Your task to perform on an android device: Search for Mexican restaurants on Maps Image 0: 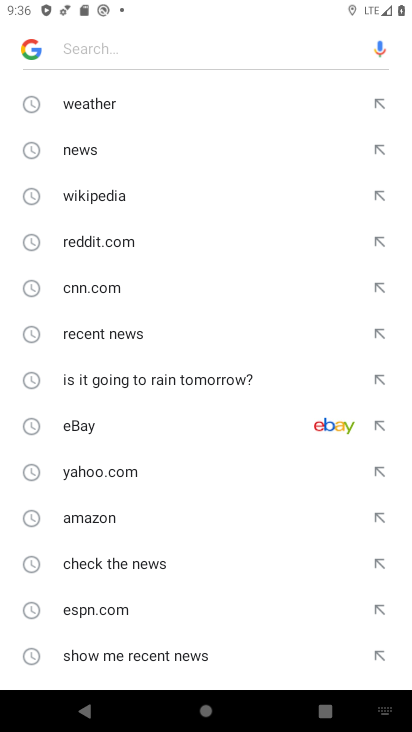
Step 0: press home button
Your task to perform on an android device: Search for Mexican restaurants on Maps Image 1: 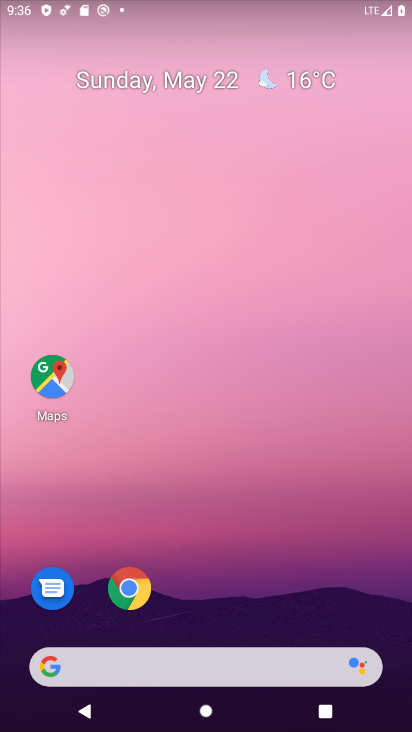
Step 1: click (41, 398)
Your task to perform on an android device: Search for Mexican restaurants on Maps Image 2: 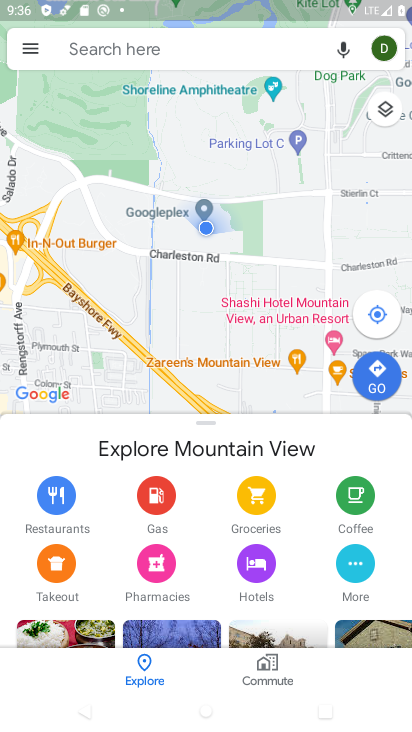
Step 2: click (233, 43)
Your task to perform on an android device: Search for Mexican restaurants on Maps Image 3: 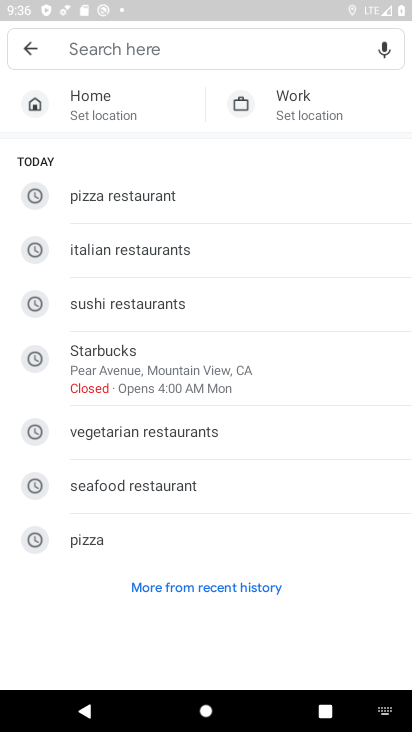
Step 3: click (136, 43)
Your task to perform on an android device: Search for Mexican restaurants on Maps Image 4: 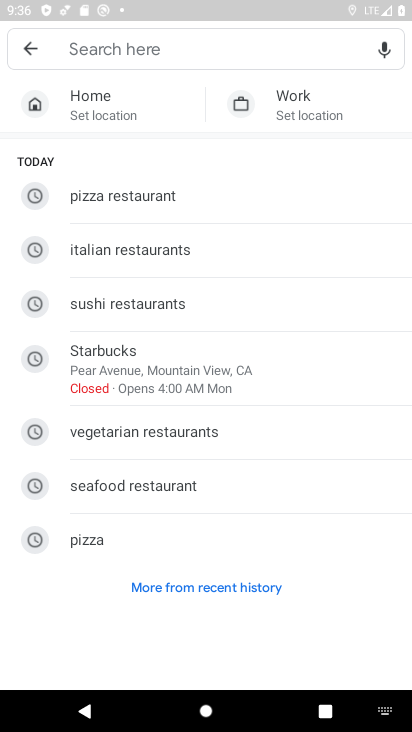
Step 4: type "Mexican restaurants"
Your task to perform on an android device: Search for Mexican restaurants on Maps Image 5: 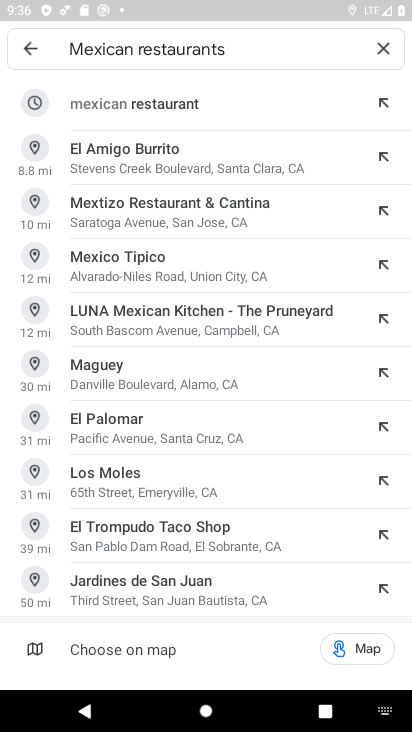
Step 5: click (169, 111)
Your task to perform on an android device: Search for Mexican restaurants on Maps Image 6: 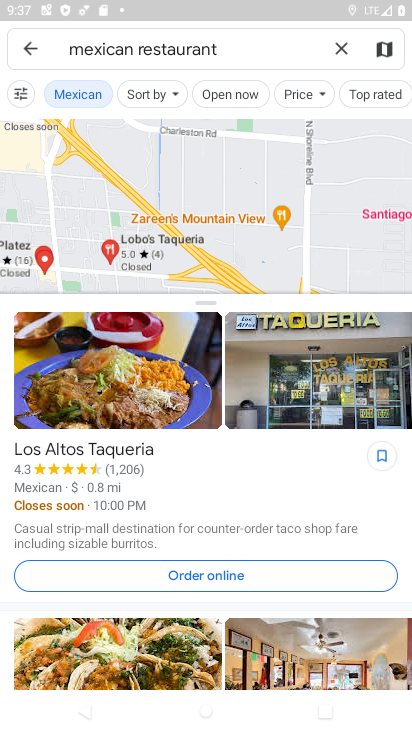
Step 6: task complete